Your task to perform on an android device: Open Google Chrome and open the bookmarks view Image 0: 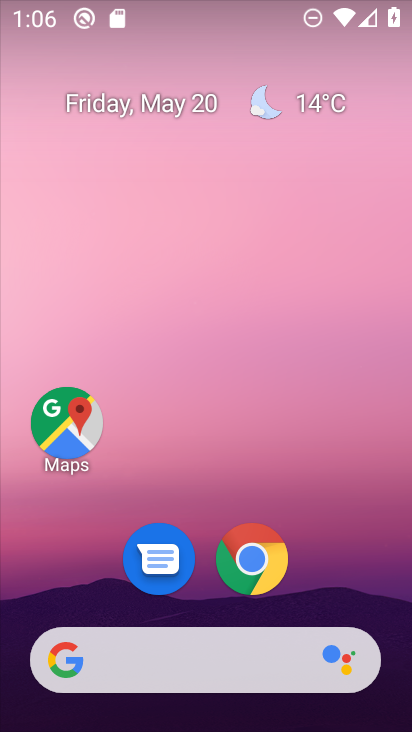
Step 0: click (265, 569)
Your task to perform on an android device: Open Google Chrome and open the bookmarks view Image 1: 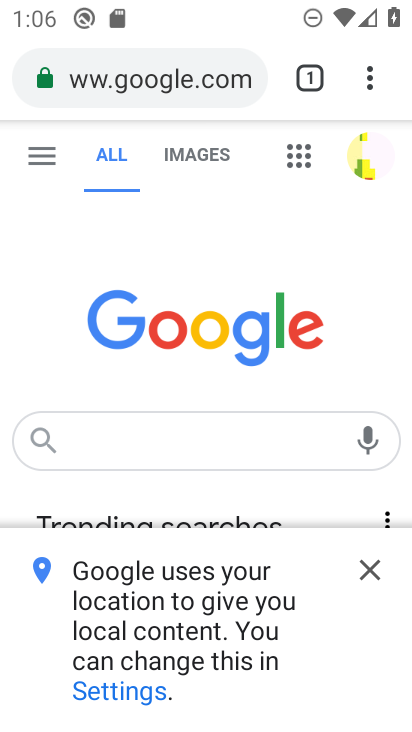
Step 1: click (386, 81)
Your task to perform on an android device: Open Google Chrome and open the bookmarks view Image 2: 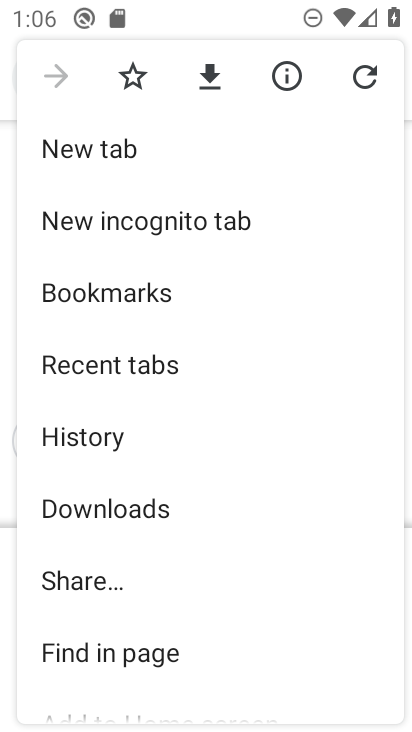
Step 2: click (239, 280)
Your task to perform on an android device: Open Google Chrome and open the bookmarks view Image 3: 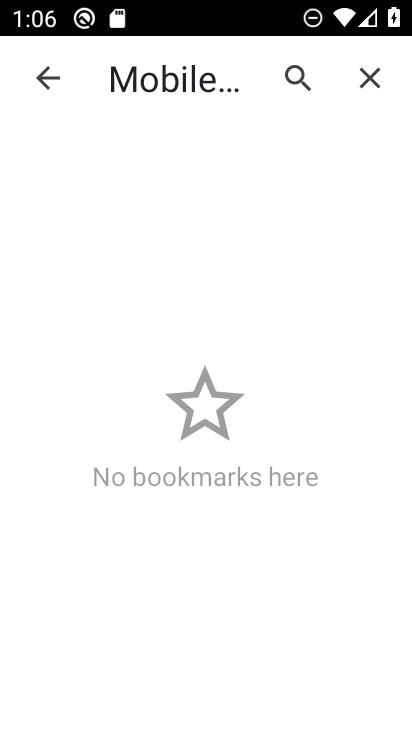
Step 3: task complete